Your task to perform on an android device: Go to accessibility settings Image 0: 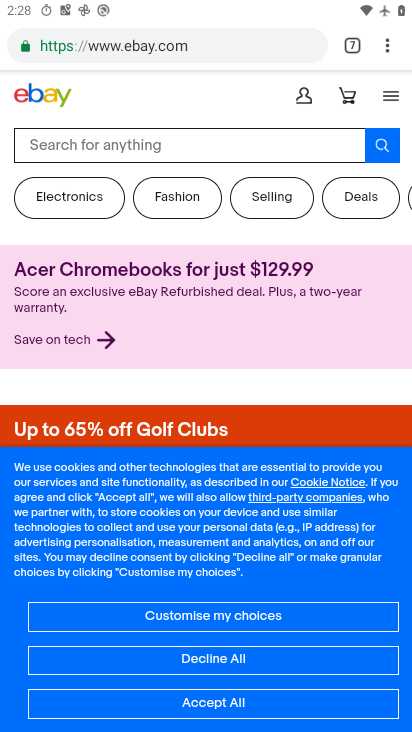
Step 0: press home button
Your task to perform on an android device: Go to accessibility settings Image 1: 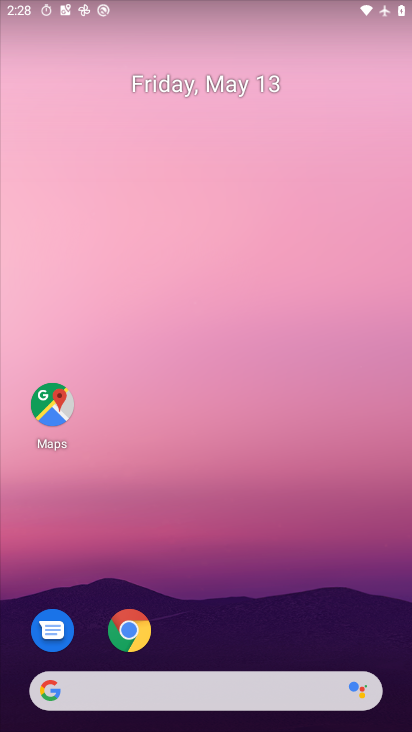
Step 1: drag from (318, 228) to (325, 171)
Your task to perform on an android device: Go to accessibility settings Image 2: 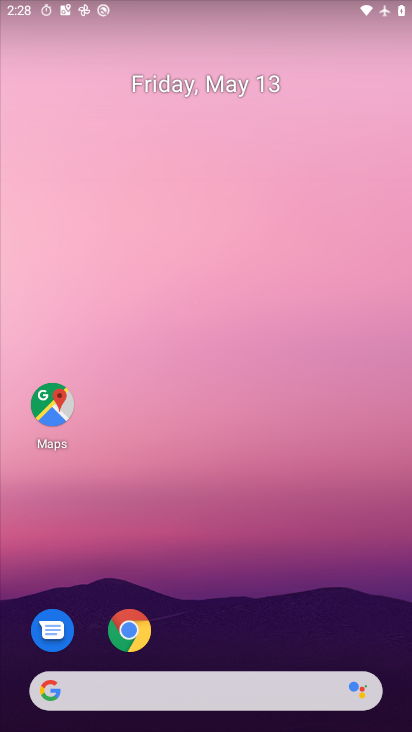
Step 2: drag from (237, 554) to (348, 12)
Your task to perform on an android device: Go to accessibility settings Image 3: 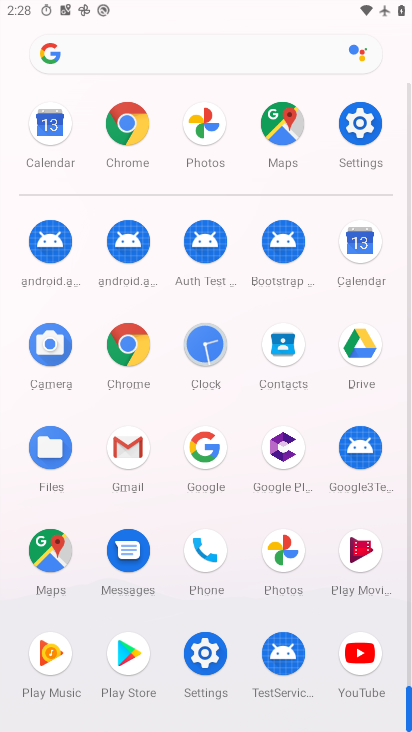
Step 3: drag from (260, 527) to (405, 60)
Your task to perform on an android device: Go to accessibility settings Image 4: 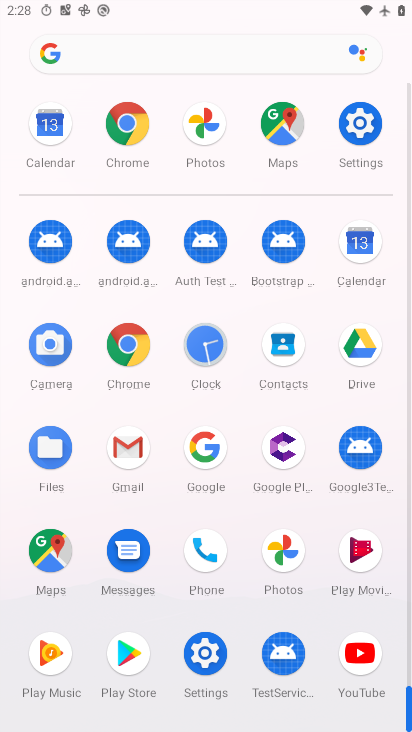
Step 4: click (369, 135)
Your task to perform on an android device: Go to accessibility settings Image 5: 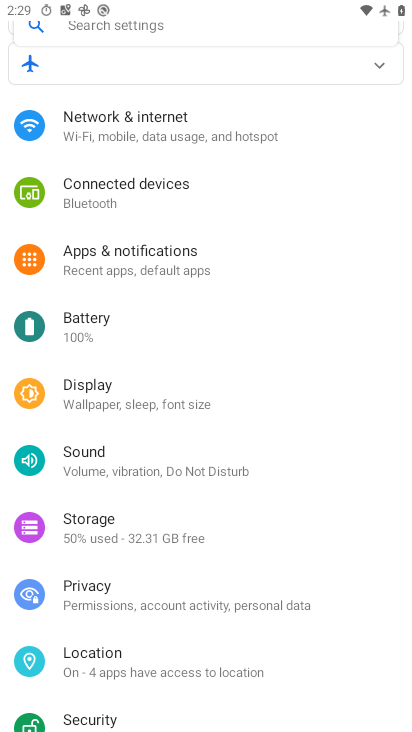
Step 5: drag from (142, 590) to (177, 305)
Your task to perform on an android device: Go to accessibility settings Image 6: 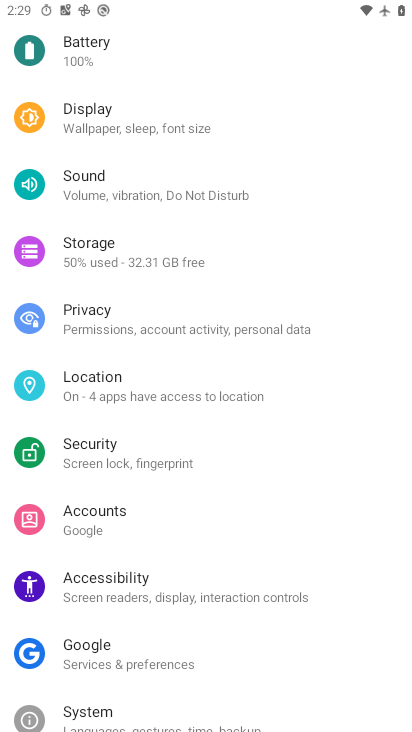
Step 6: click (148, 591)
Your task to perform on an android device: Go to accessibility settings Image 7: 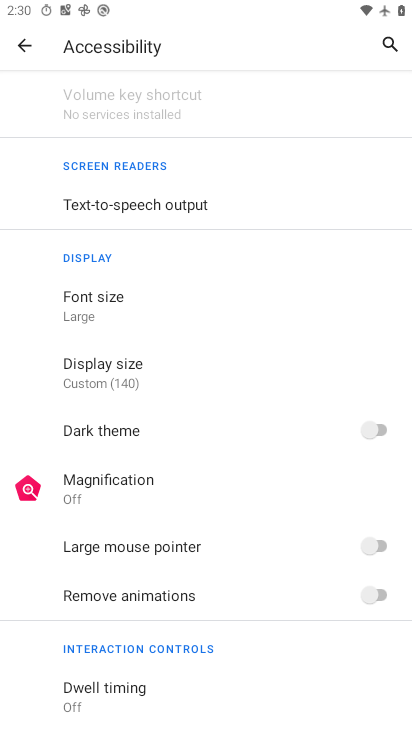
Step 7: task complete